Your task to perform on an android device: Open wifi settings Image 0: 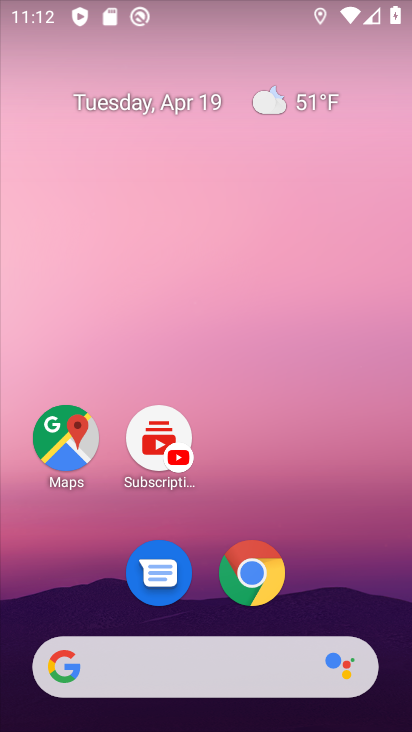
Step 0: drag from (333, 525) to (300, 69)
Your task to perform on an android device: Open wifi settings Image 1: 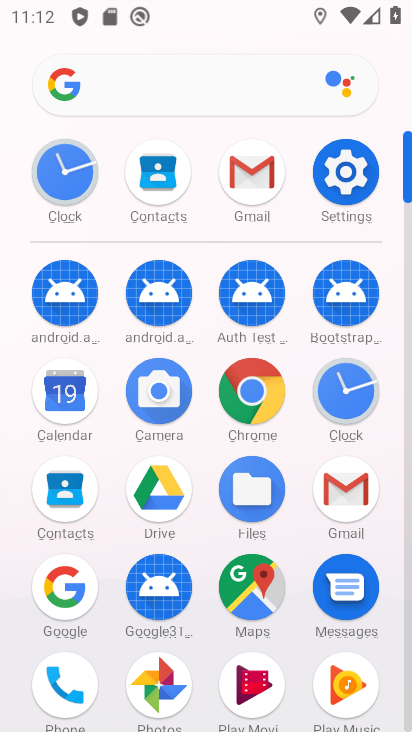
Step 1: click (341, 175)
Your task to perform on an android device: Open wifi settings Image 2: 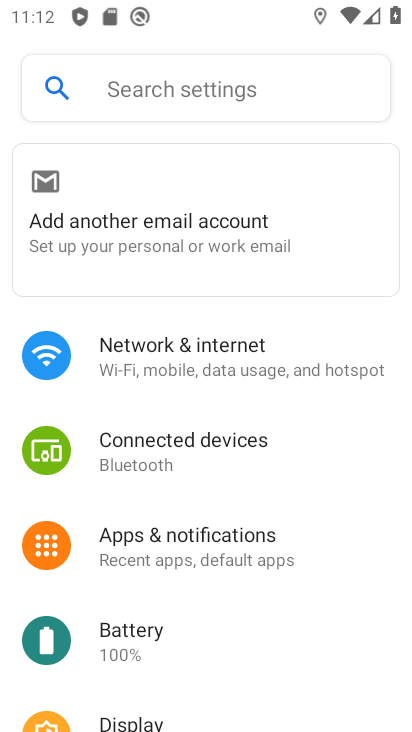
Step 2: click (172, 360)
Your task to perform on an android device: Open wifi settings Image 3: 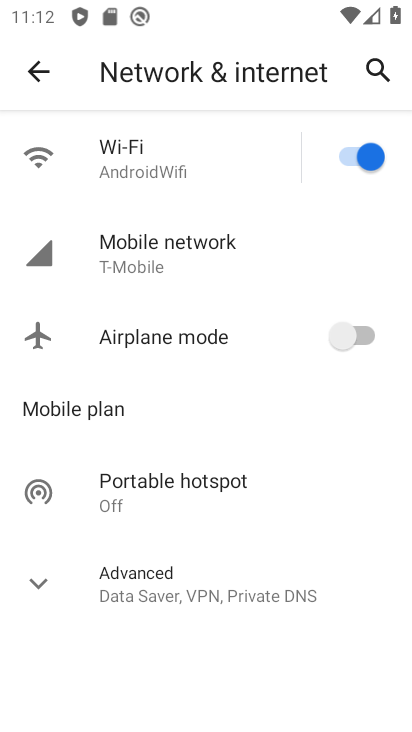
Step 3: click (134, 168)
Your task to perform on an android device: Open wifi settings Image 4: 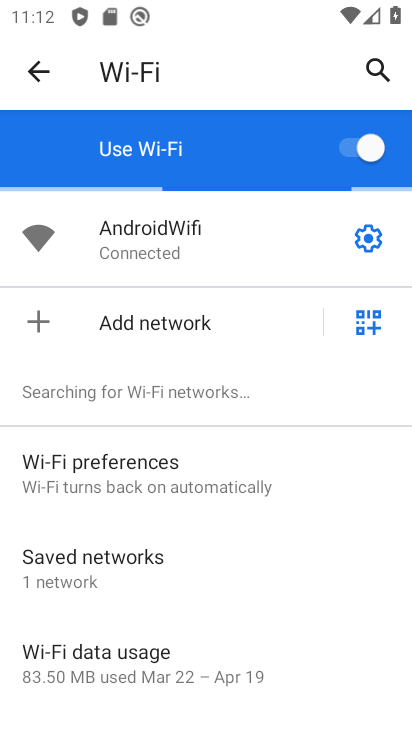
Step 4: task complete